Your task to perform on an android device: turn on sleep mode Image 0: 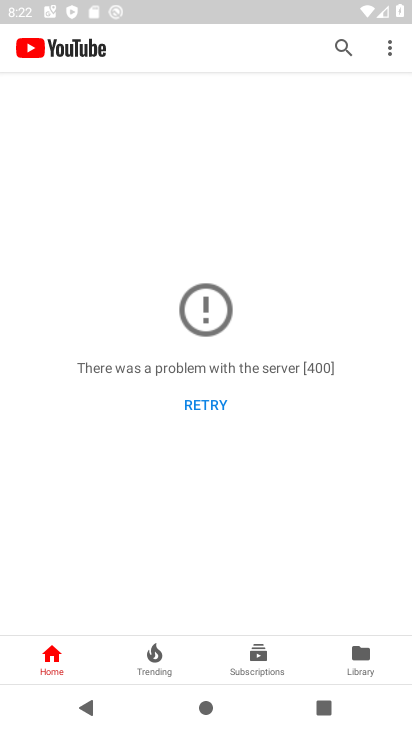
Step 0: press home button
Your task to perform on an android device: turn on sleep mode Image 1: 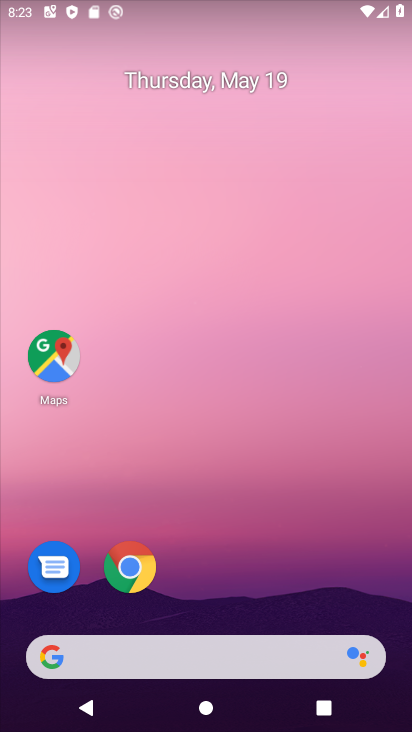
Step 1: drag from (171, 552) to (281, 0)
Your task to perform on an android device: turn on sleep mode Image 2: 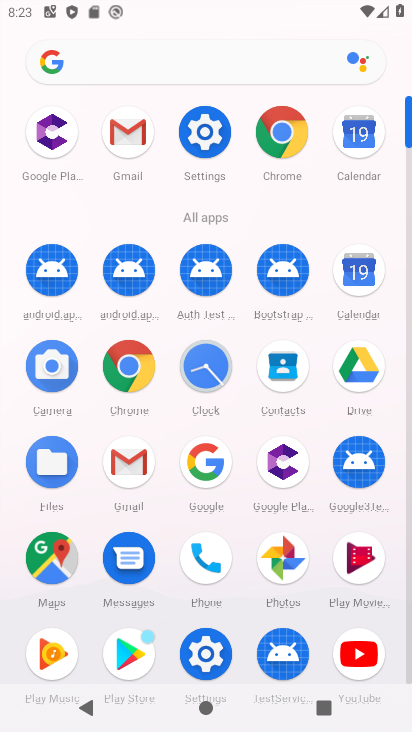
Step 2: click (199, 134)
Your task to perform on an android device: turn on sleep mode Image 3: 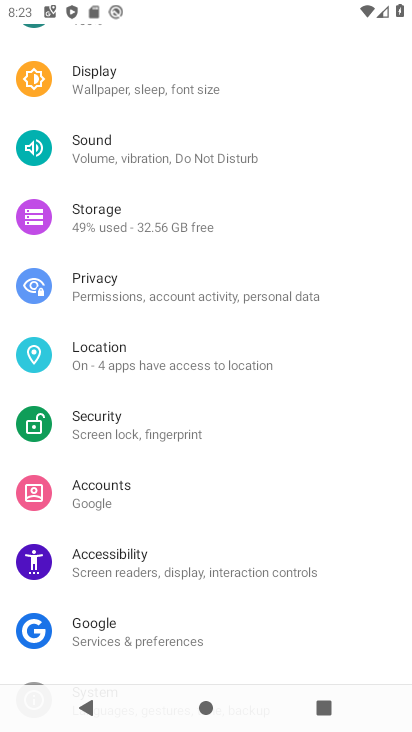
Step 3: drag from (196, 138) to (155, 608)
Your task to perform on an android device: turn on sleep mode Image 4: 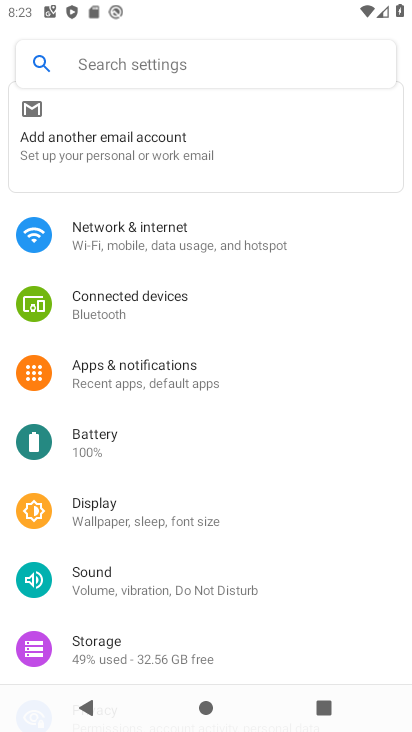
Step 4: click (183, 56)
Your task to perform on an android device: turn on sleep mode Image 5: 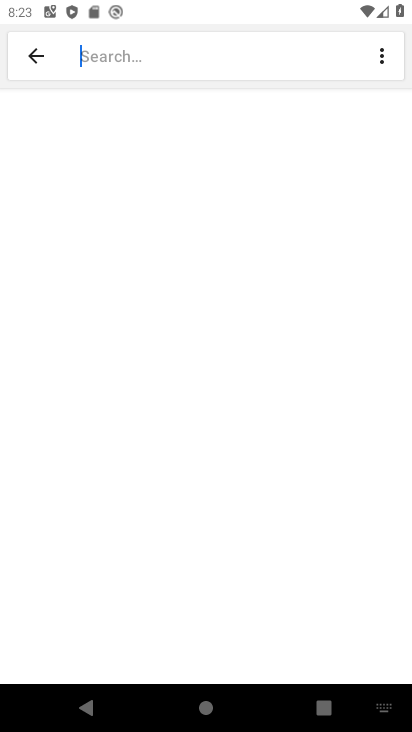
Step 5: type "sleep mode"
Your task to perform on an android device: turn on sleep mode Image 6: 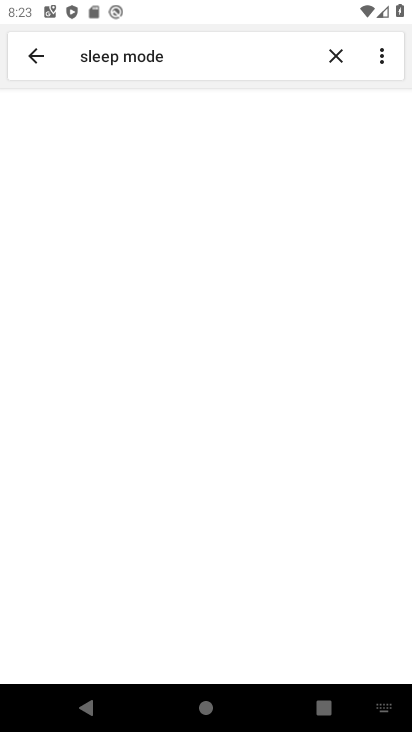
Step 6: click (143, 147)
Your task to perform on an android device: turn on sleep mode Image 7: 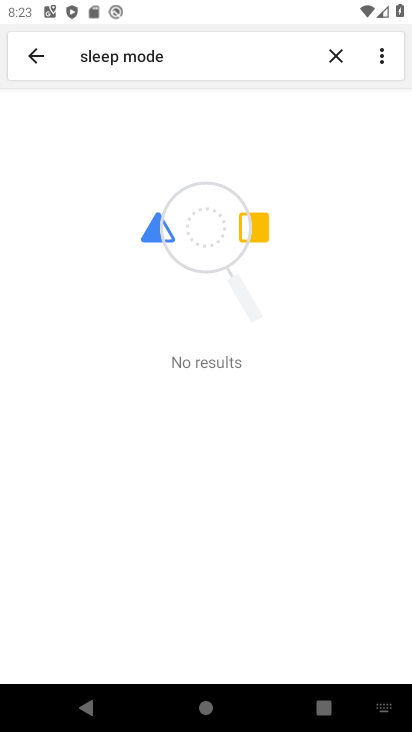
Step 7: task complete